Your task to perform on an android device: change timer sound Image 0: 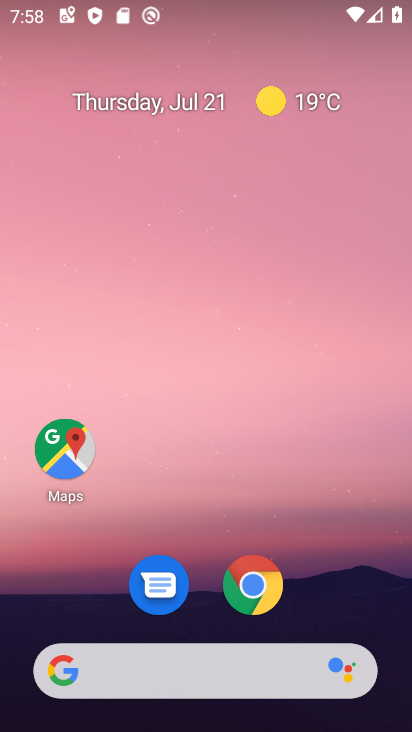
Step 0: drag from (331, 572) to (336, 34)
Your task to perform on an android device: change timer sound Image 1: 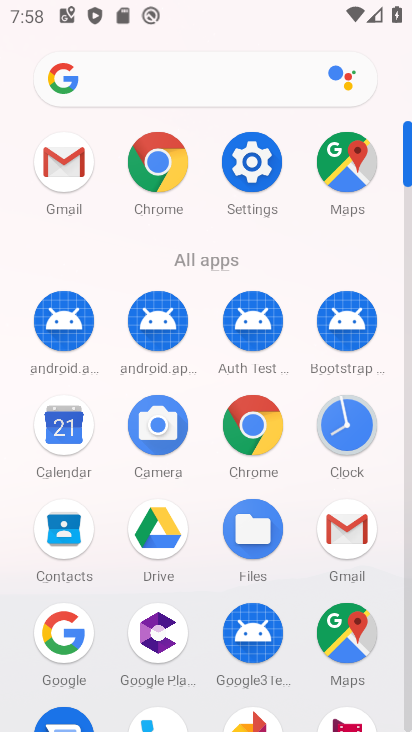
Step 1: click (344, 418)
Your task to perform on an android device: change timer sound Image 2: 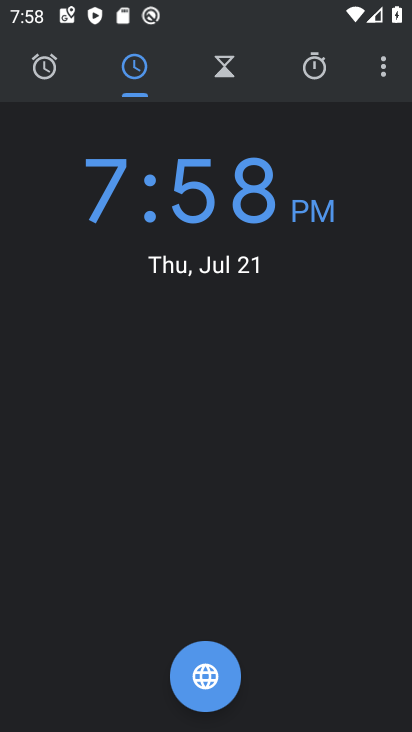
Step 2: click (390, 66)
Your task to perform on an android device: change timer sound Image 3: 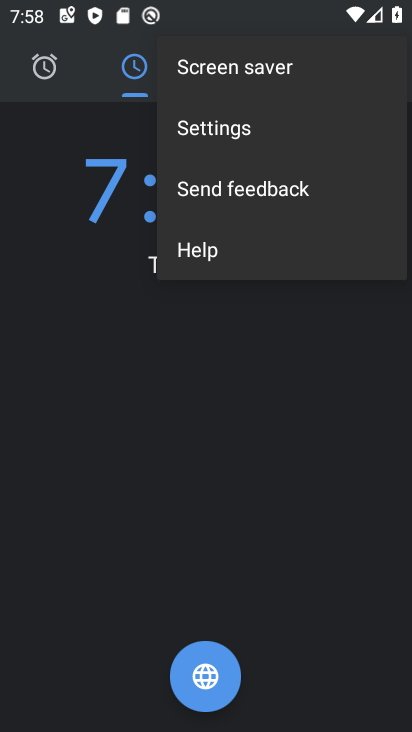
Step 3: click (268, 128)
Your task to perform on an android device: change timer sound Image 4: 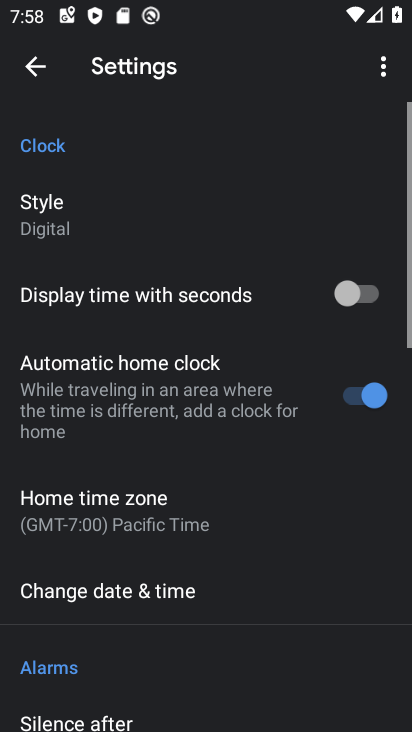
Step 4: drag from (289, 562) to (281, 36)
Your task to perform on an android device: change timer sound Image 5: 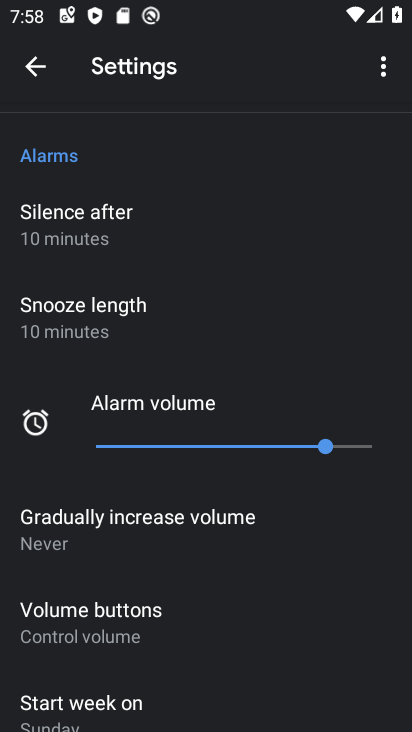
Step 5: drag from (280, 568) to (308, 83)
Your task to perform on an android device: change timer sound Image 6: 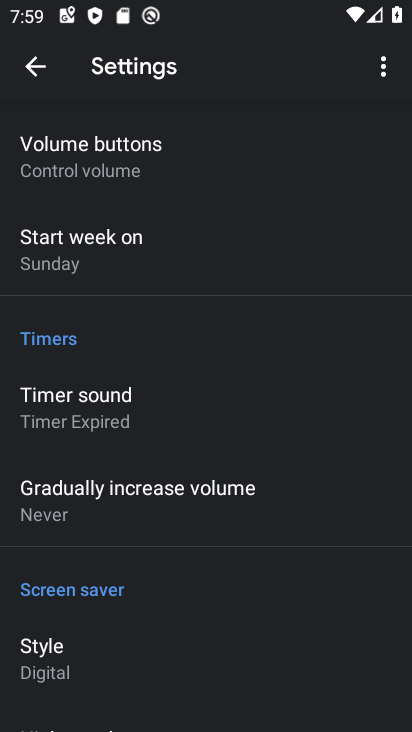
Step 6: click (126, 400)
Your task to perform on an android device: change timer sound Image 7: 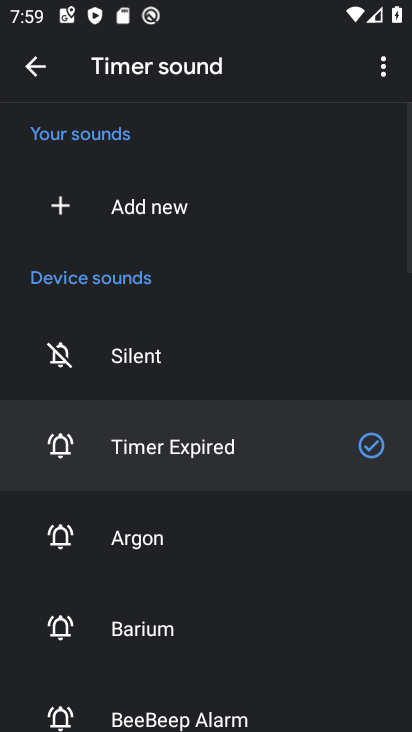
Step 7: click (144, 541)
Your task to perform on an android device: change timer sound Image 8: 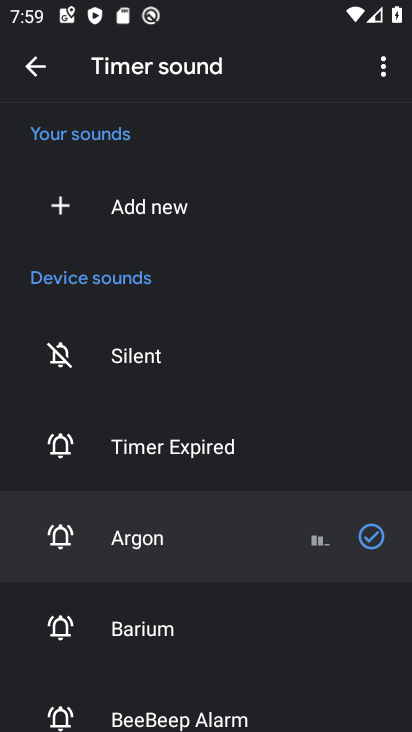
Step 8: task complete